Your task to perform on an android device: change timer sound Image 0: 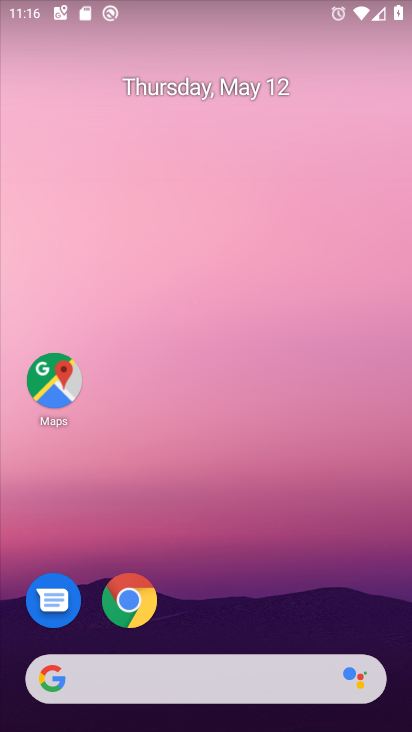
Step 0: drag from (198, 565) to (201, 229)
Your task to perform on an android device: change timer sound Image 1: 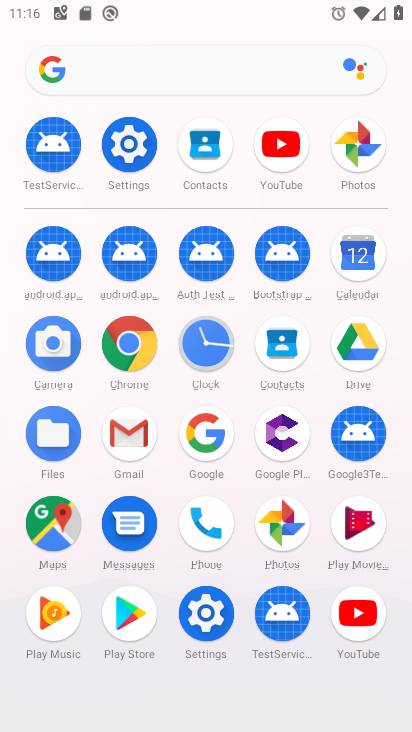
Step 1: click (214, 359)
Your task to perform on an android device: change timer sound Image 2: 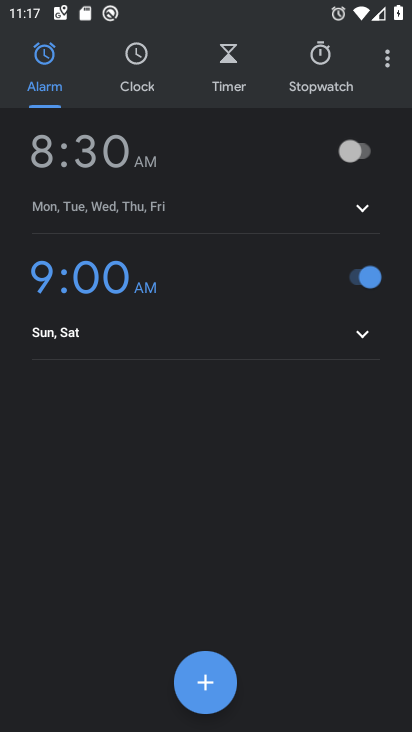
Step 2: click (388, 58)
Your task to perform on an android device: change timer sound Image 3: 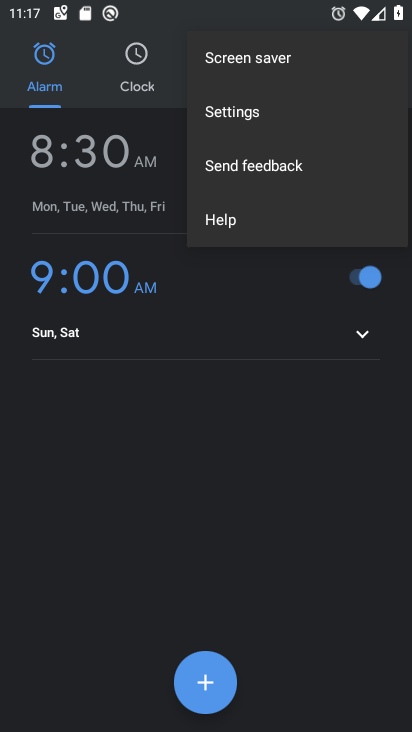
Step 3: click (238, 111)
Your task to perform on an android device: change timer sound Image 4: 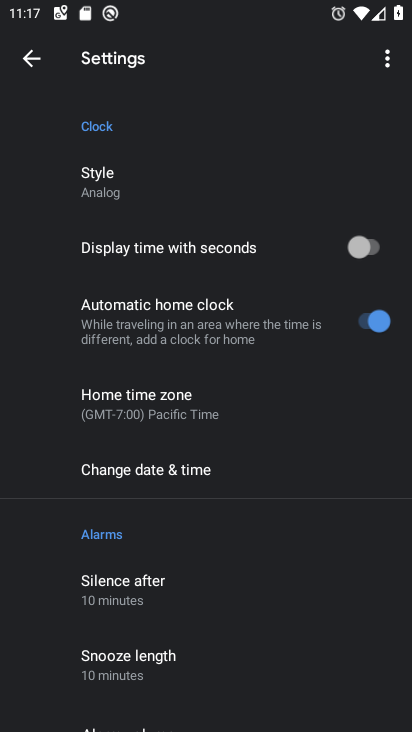
Step 4: drag from (158, 660) to (192, 260)
Your task to perform on an android device: change timer sound Image 5: 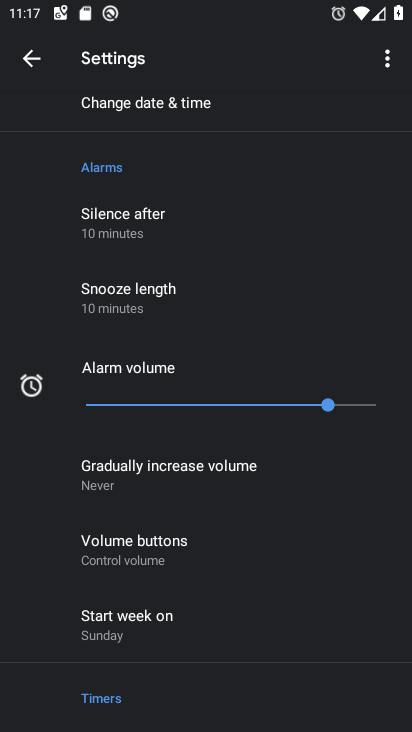
Step 5: drag from (156, 705) to (148, 400)
Your task to perform on an android device: change timer sound Image 6: 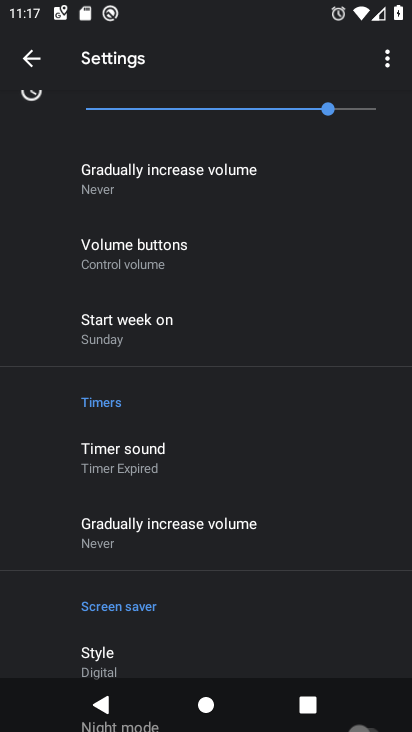
Step 6: click (142, 465)
Your task to perform on an android device: change timer sound Image 7: 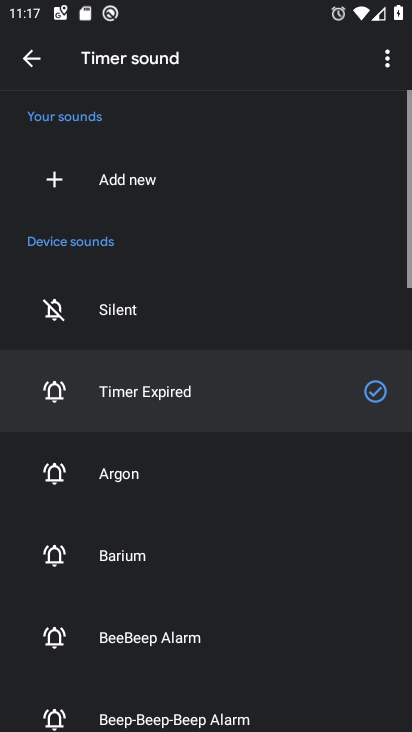
Step 7: drag from (191, 686) to (167, 401)
Your task to perform on an android device: change timer sound Image 8: 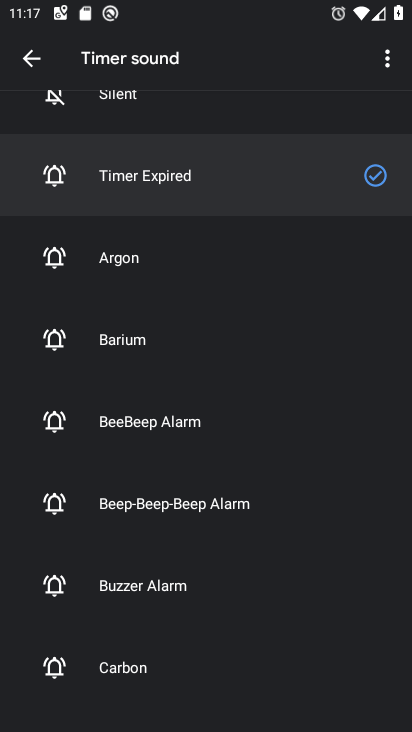
Step 8: drag from (169, 631) to (208, 258)
Your task to perform on an android device: change timer sound Image 9: 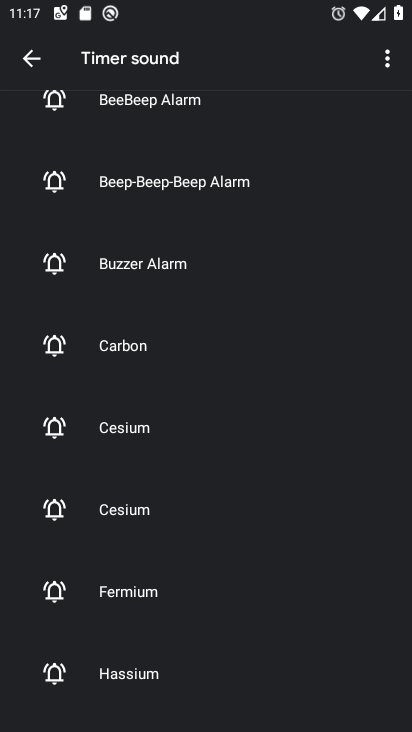
Step 9: click (127, 669)
Your task to perform on an android device: change timer sound Image 10: 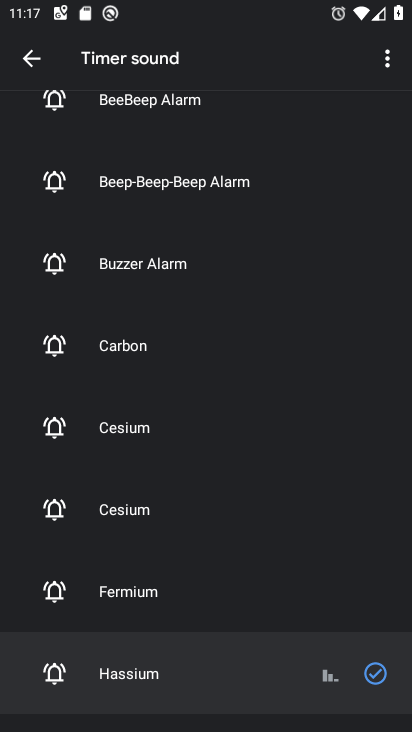
Step 10: task complete